Your task to perform on an android device: Go to network settings Image 0: 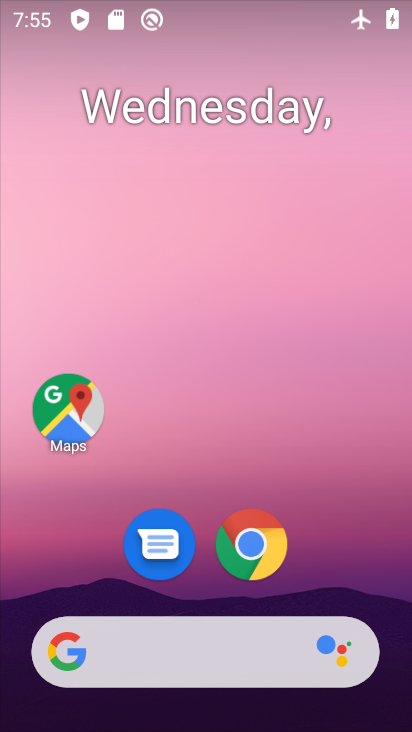
Step 0: drag from (205, 676) to (180, 55)
Your task to perform on an android device: Go to network settings Image 1: 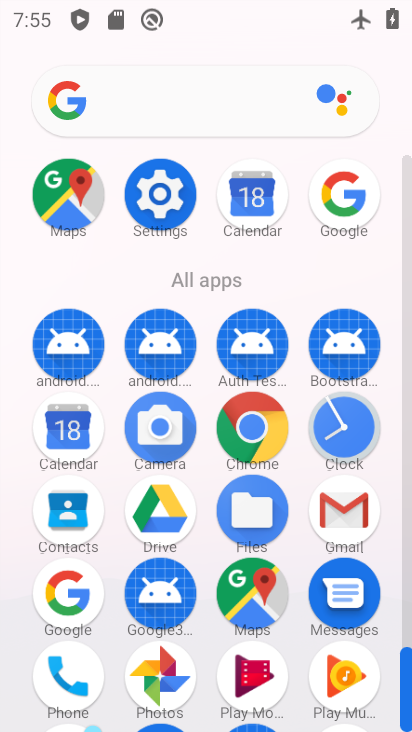
Step 1: click (166, 198)
Your task to perform on an android device: Go to network settings Image 2: 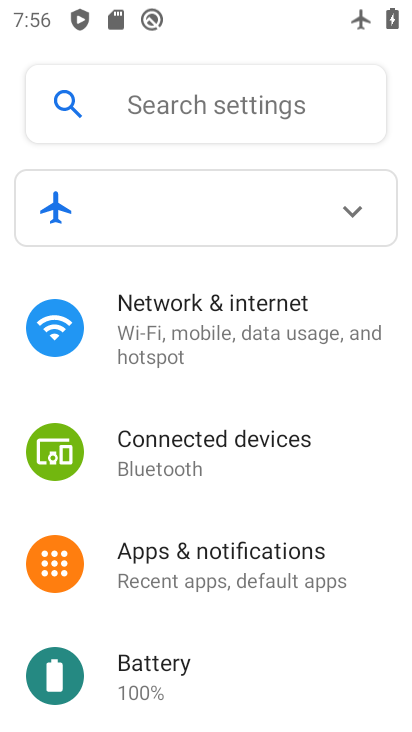
Step 2: click (180, 335)
Your task to perform on an android device: Go to network settings Image 3: 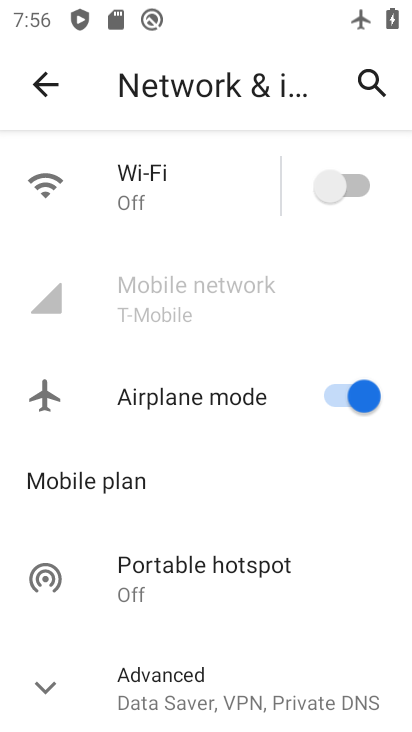
Step 3: click (336, 382)
Your task to perform on an android device: Go to network settings Image 4: 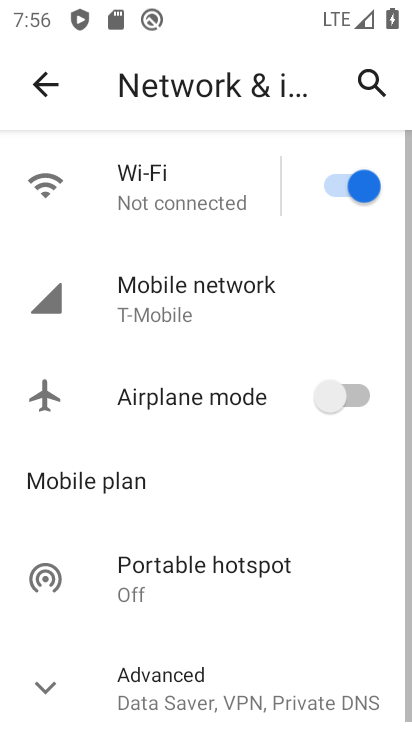
Step 4: click (210, 278)
Your task to perform on an android device: Go to network settings Image 5: 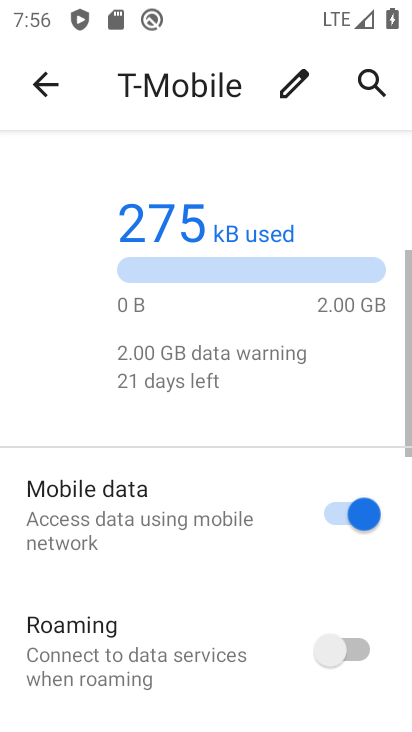
Step 5: task complete